Your task to perform on an android device: Search for seafood restaurants on Google Maps Image 0: 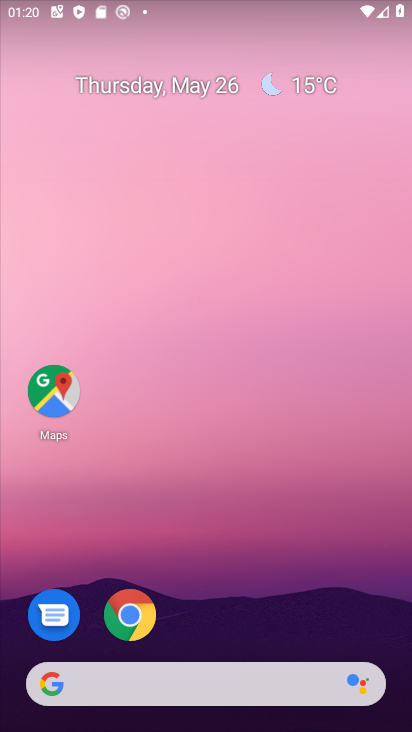
Step 0: click (57, 379)
Your task to perform on an android device: Search for seafood restaurants on Google Maps Image 1: 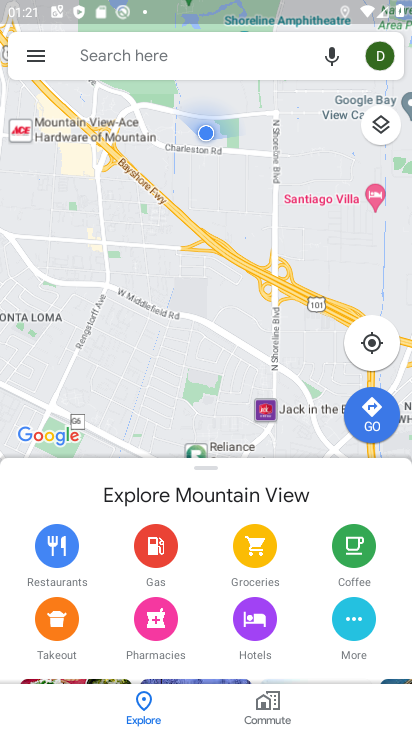
Step 1: click (207, 45)
Your task to perform on an android device: Search for seafood restaurants on Google Maps Image 2: 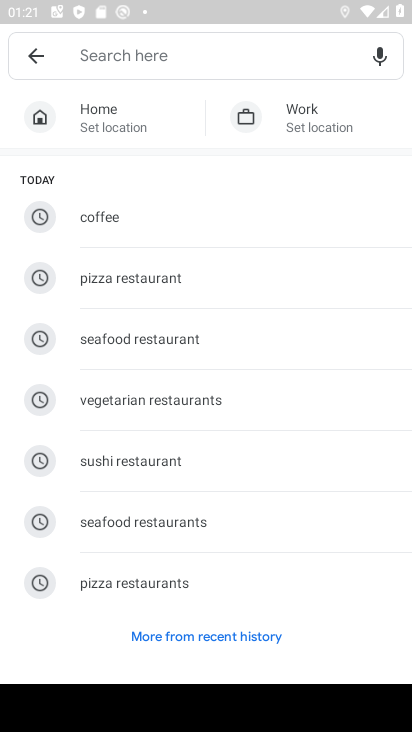
Step 2: click (139, 343)
Your task to perform on an android device: Search for seafood restaurants on Google Maps Image 3: 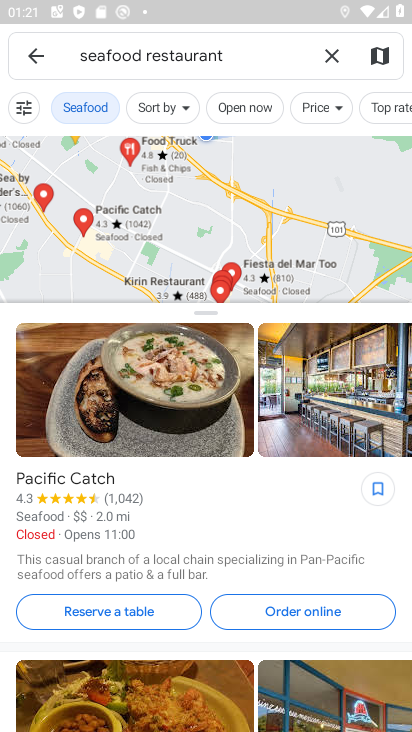
Step 3: task complete